Your task to perform on an android device: refresh tabs in the chrome app Image 0: 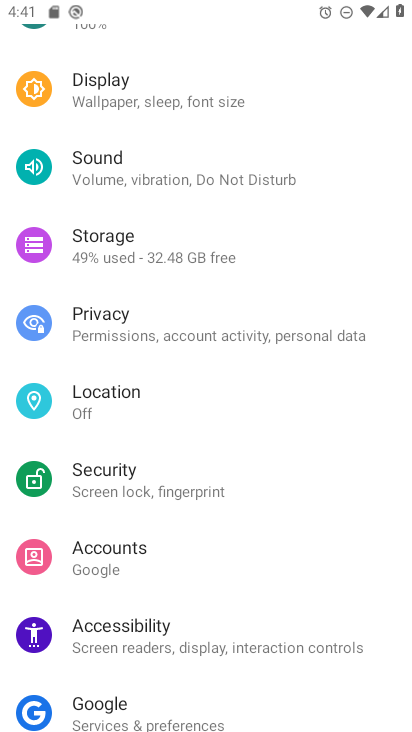
Step 0: press home button
Your task to perform on an android device: refresh tabs in the chrome app Image 1: 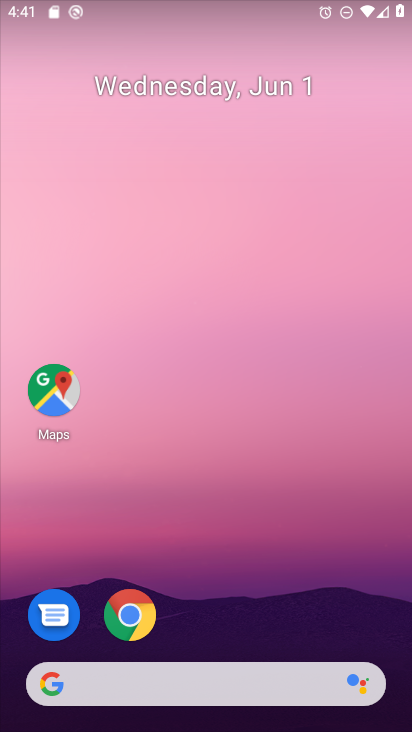
Step 1: click (125, 614)
Your task to perform on an android device: refresh tabs in the chrome app Image 2: 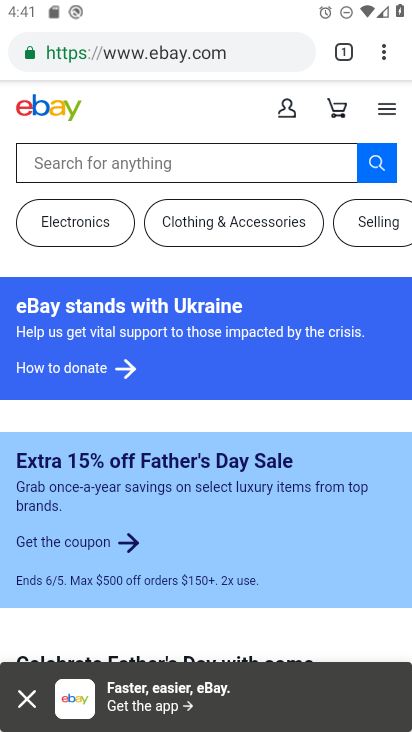
Step 2: click (382, 53)
Your task to perform on an android device: refresh tabs in the chrome app Image 3: 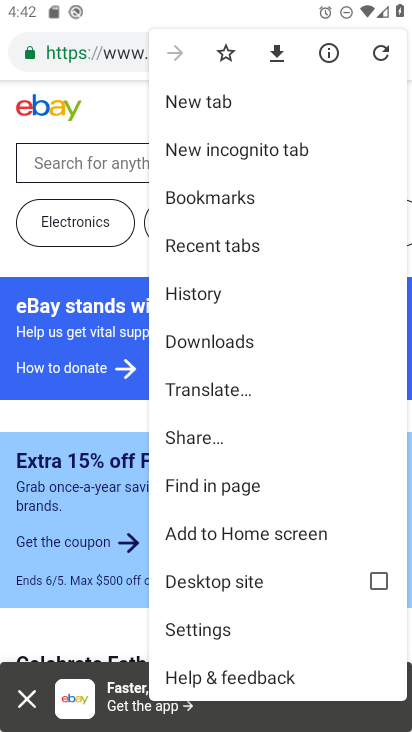
Step 3: click (372, 51)
Your task to perform on an android device: refresh tabs in the chrome app Image 4: 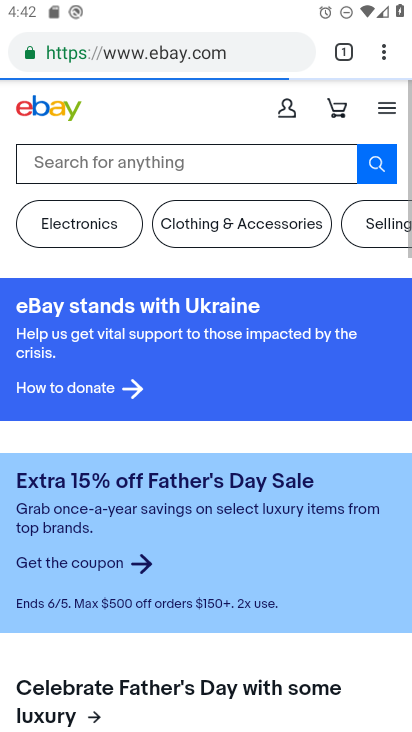
Step 4: task complete